Your task to perform on an android device: change the clock style Image 0: 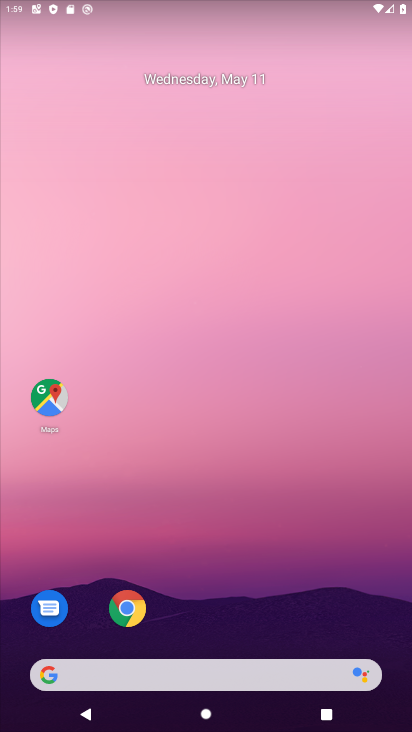
Step 0: drag from (253, 563) to (214, 90)
Your task to perform on an android device: change the clock style Image 1: 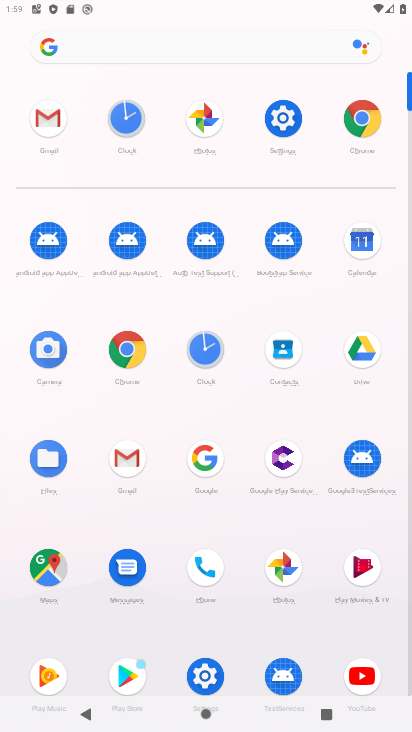
Step 1: click (128, 114)
Your task to perform on an android device: change the clock style Image 2: 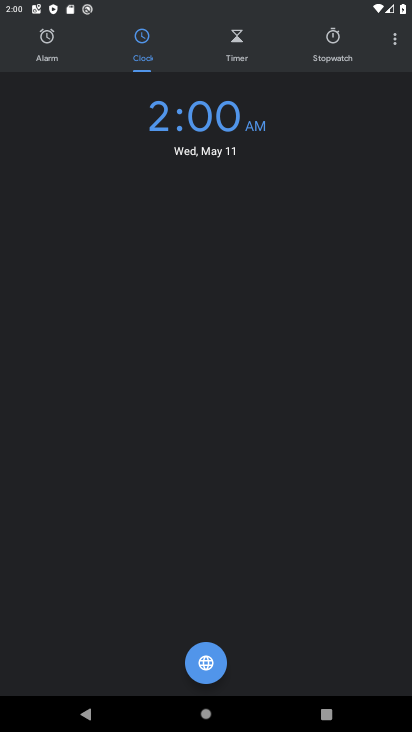
Step 2: click (391, 34)
Your task to perform on an android device: change the clock style Image 3: 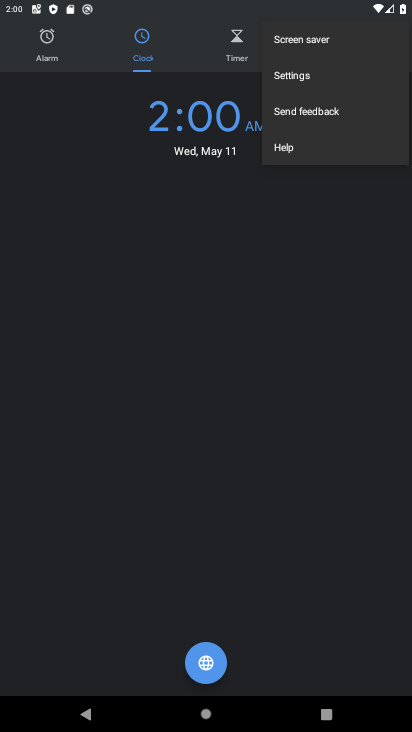
Step 3: click (354, 79)
Your task to perform on an android device: change the clock style Image 4: 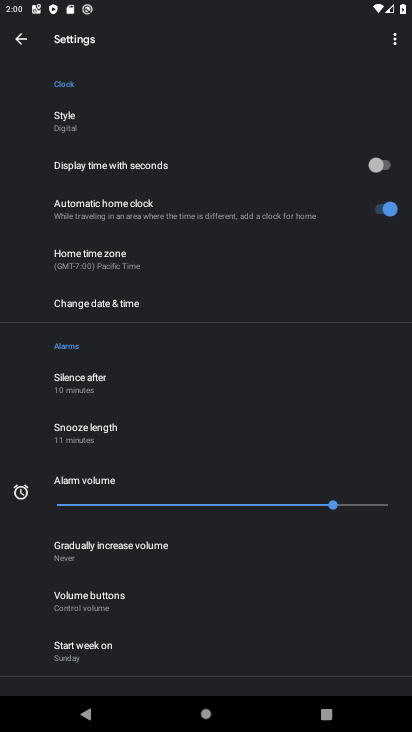
Step 4: drag from (259, 364) to (259, 235)
Your task to perform on an android device: change the clock style Image 5: 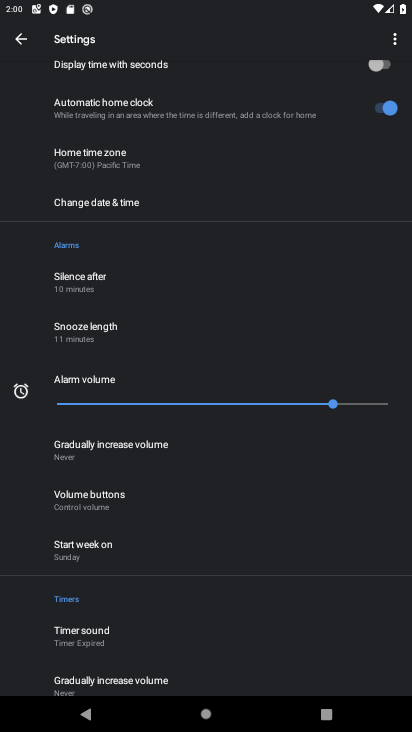
Step 5: drag from (117, 78) to (197, 584)
Your task to perform on an android device: change the clock style Image 6: 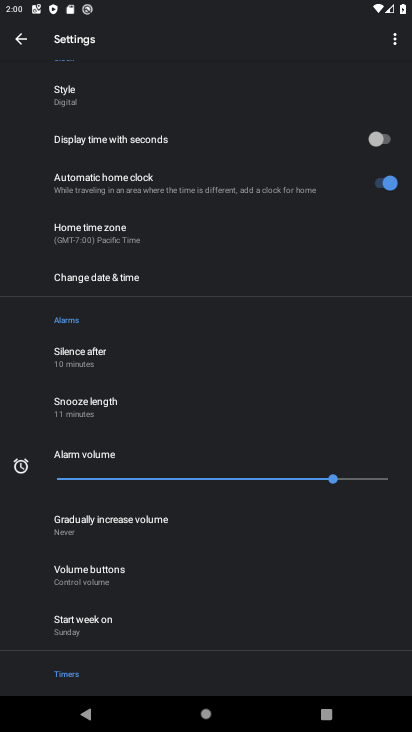
Step 6: click (86, 91)
Your task to perform on an android device: change the clock style Image 7: 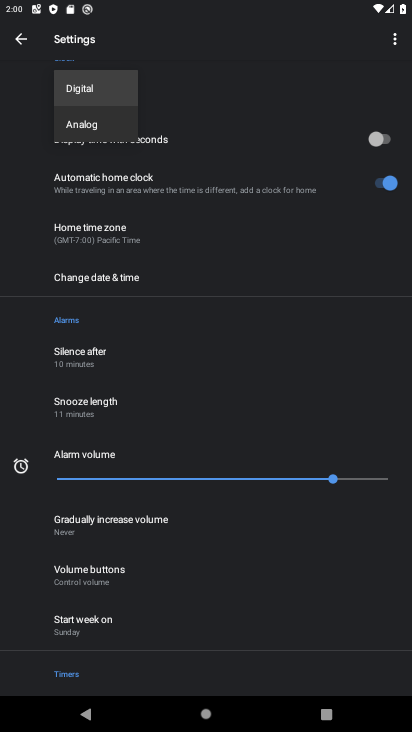
Step 7: click (101, 135)
Your task to perform on an android device: change the clock style Image 8: 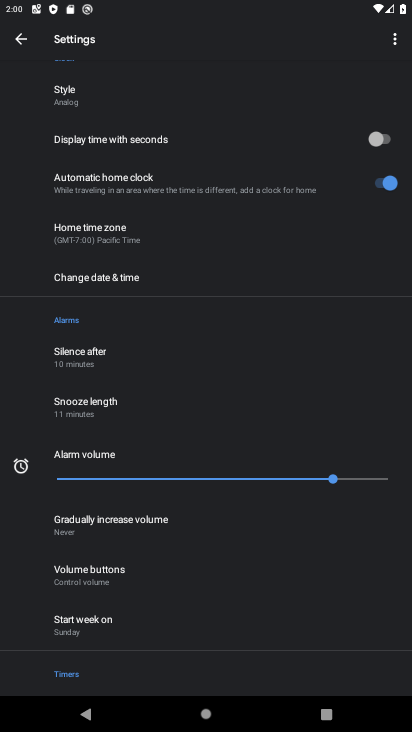
Step 8: task complete